Your task to perform on an android device: change the clock style Image 0: 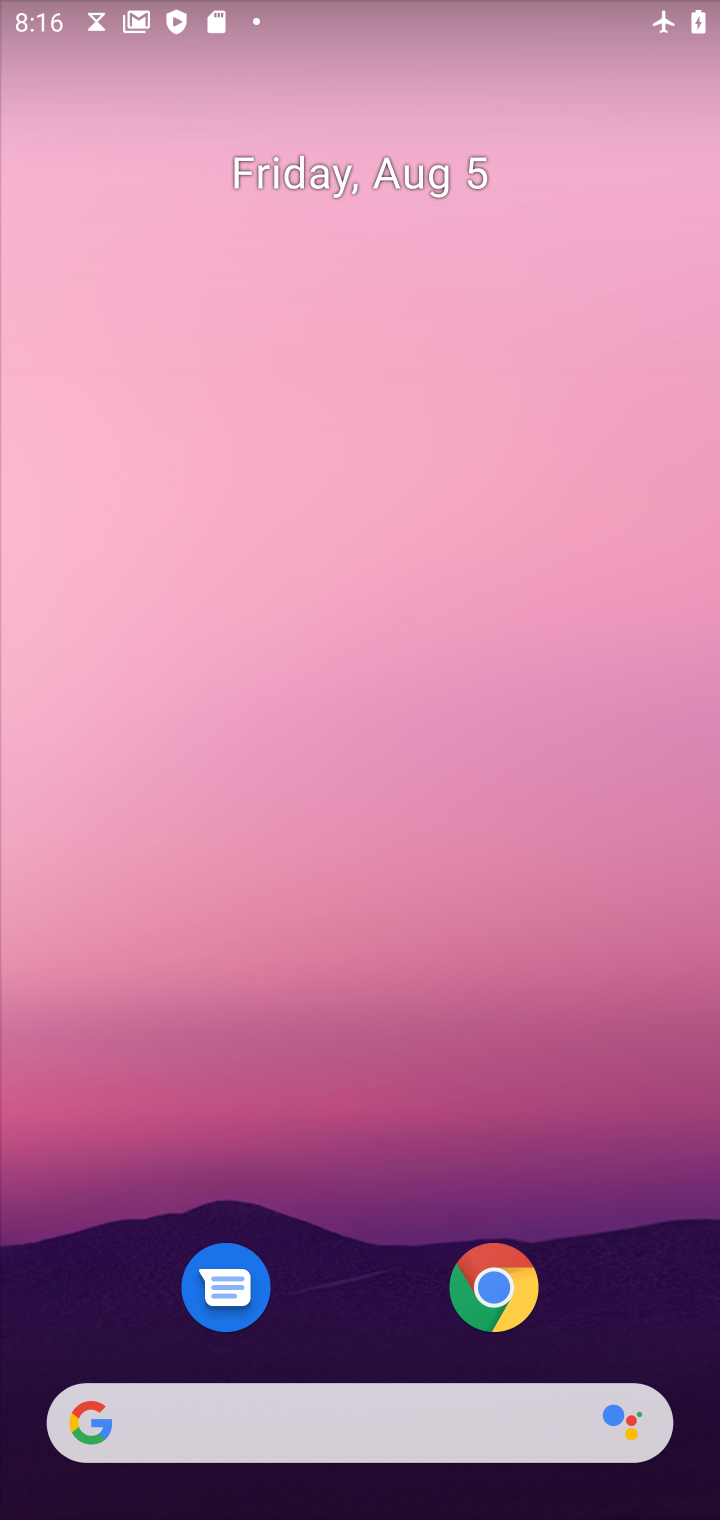
Step 0: drag from (354, 1322) to (354, 332)
Your task to perform on an android device: change the clock style Image 1: 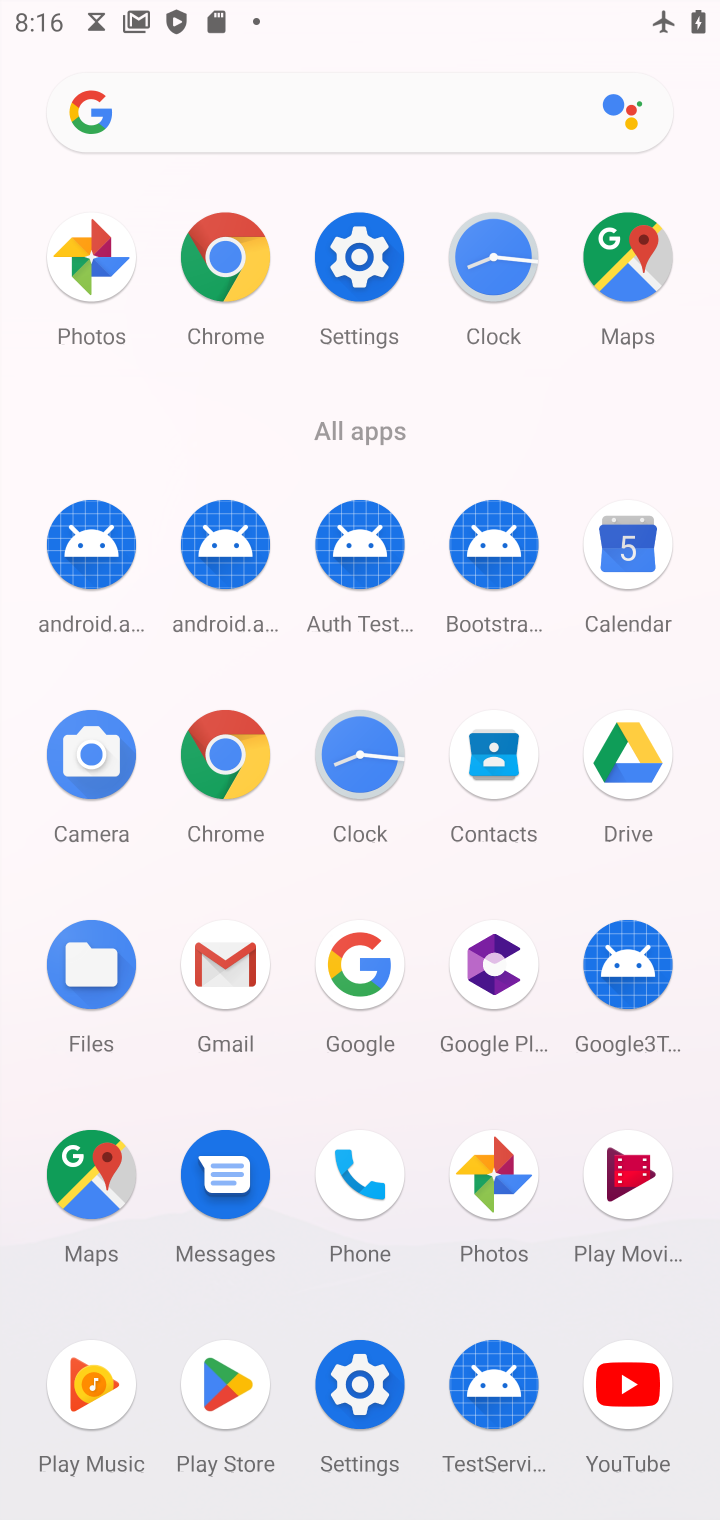
Step 1: click (352, 752)
Your task to perform on an android device: change the clock style Image 2: 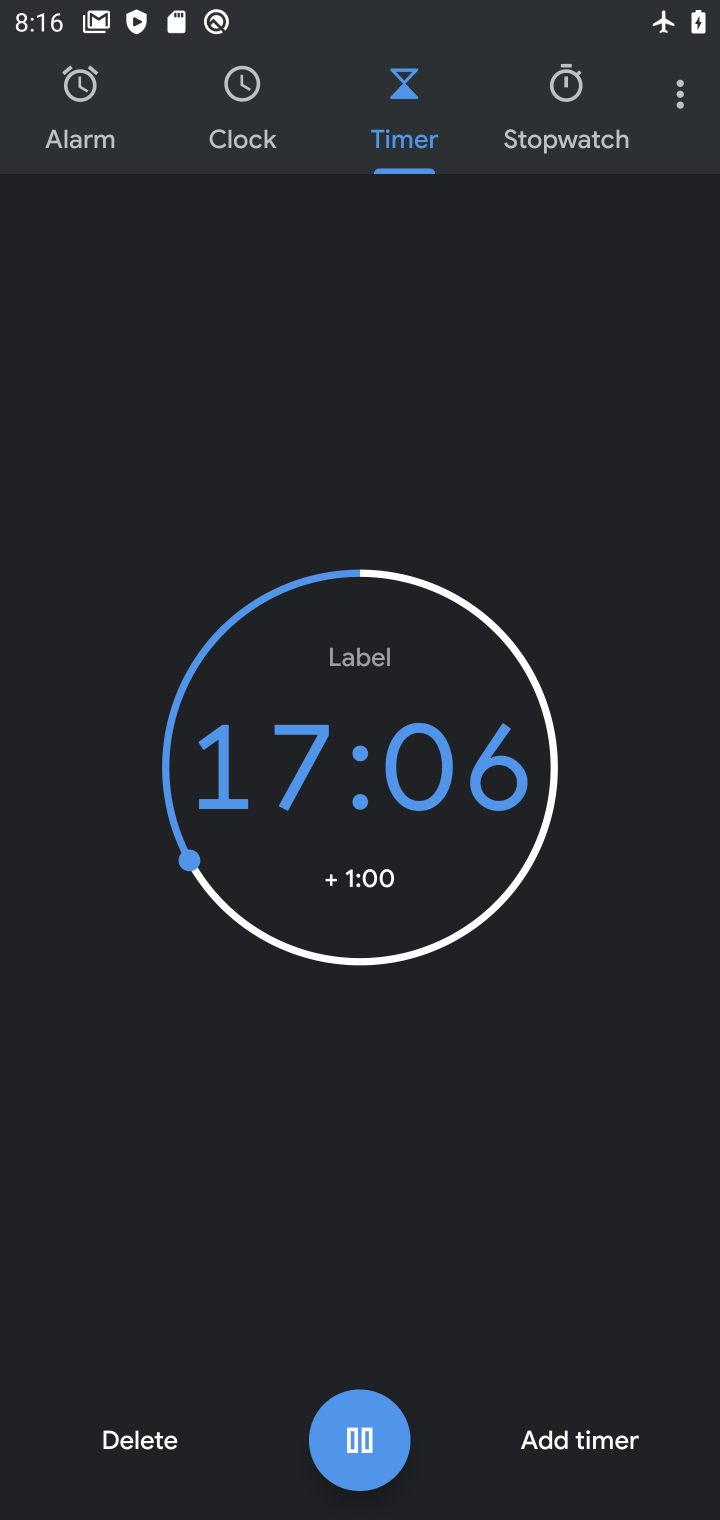
Step 2: click (679, 107)
Your task to perform on an android device: change the clock style Image 3: 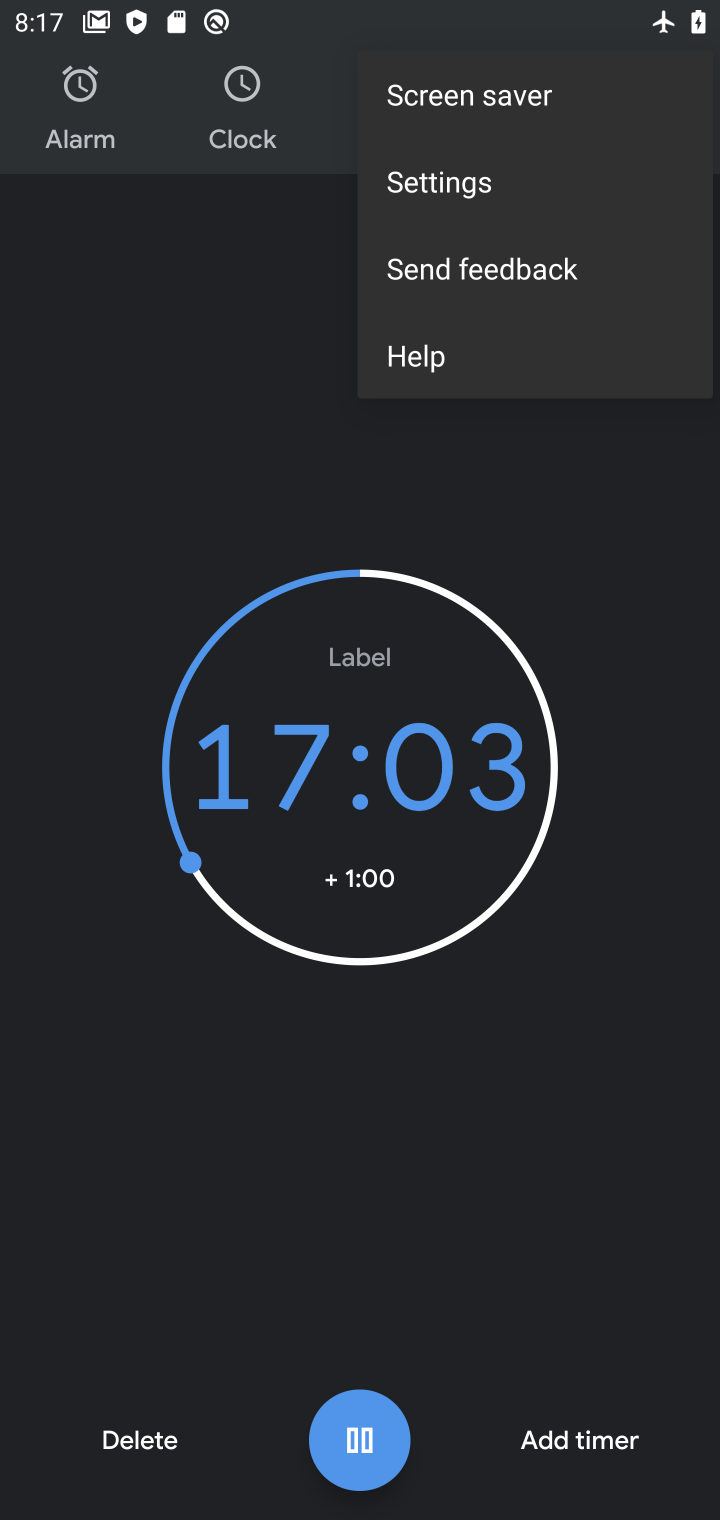
Step 3: click (456, 183)
Your task to perform on an android device: change the clock style Image 4: 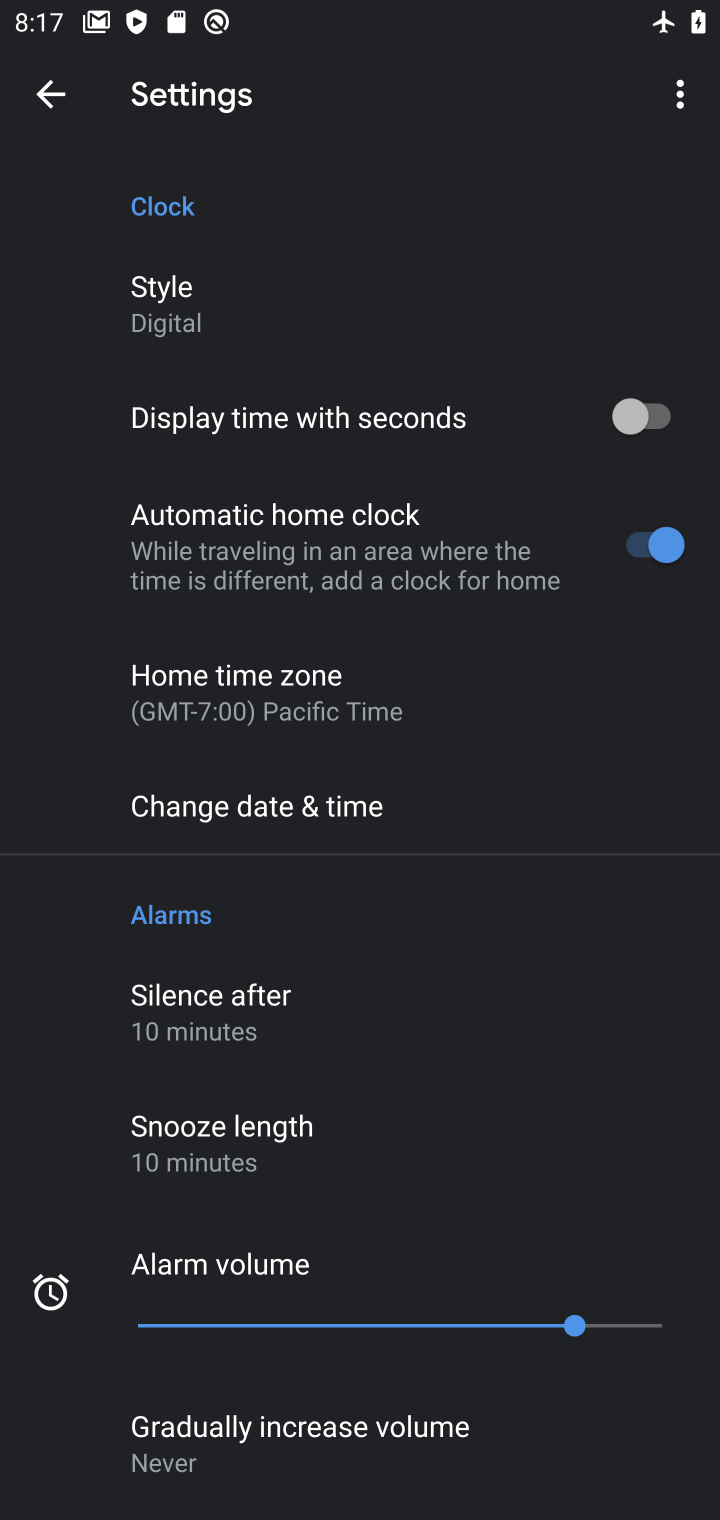
Step 4: click (174, 311)
Your task to perform on an android device: change the clock style Image 5: 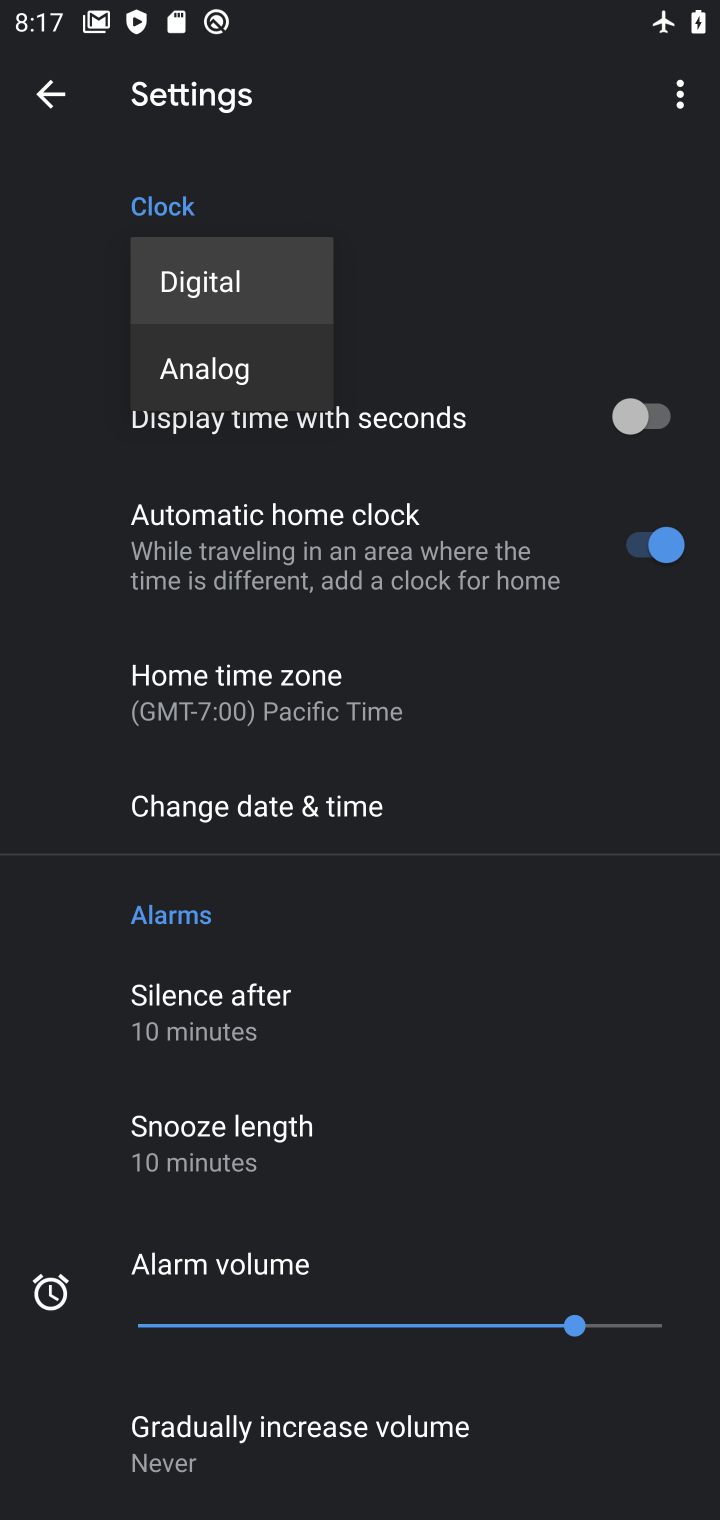
Step 5: click (196, 352)
Your task to perform on an android device: change the clock style Image 6: 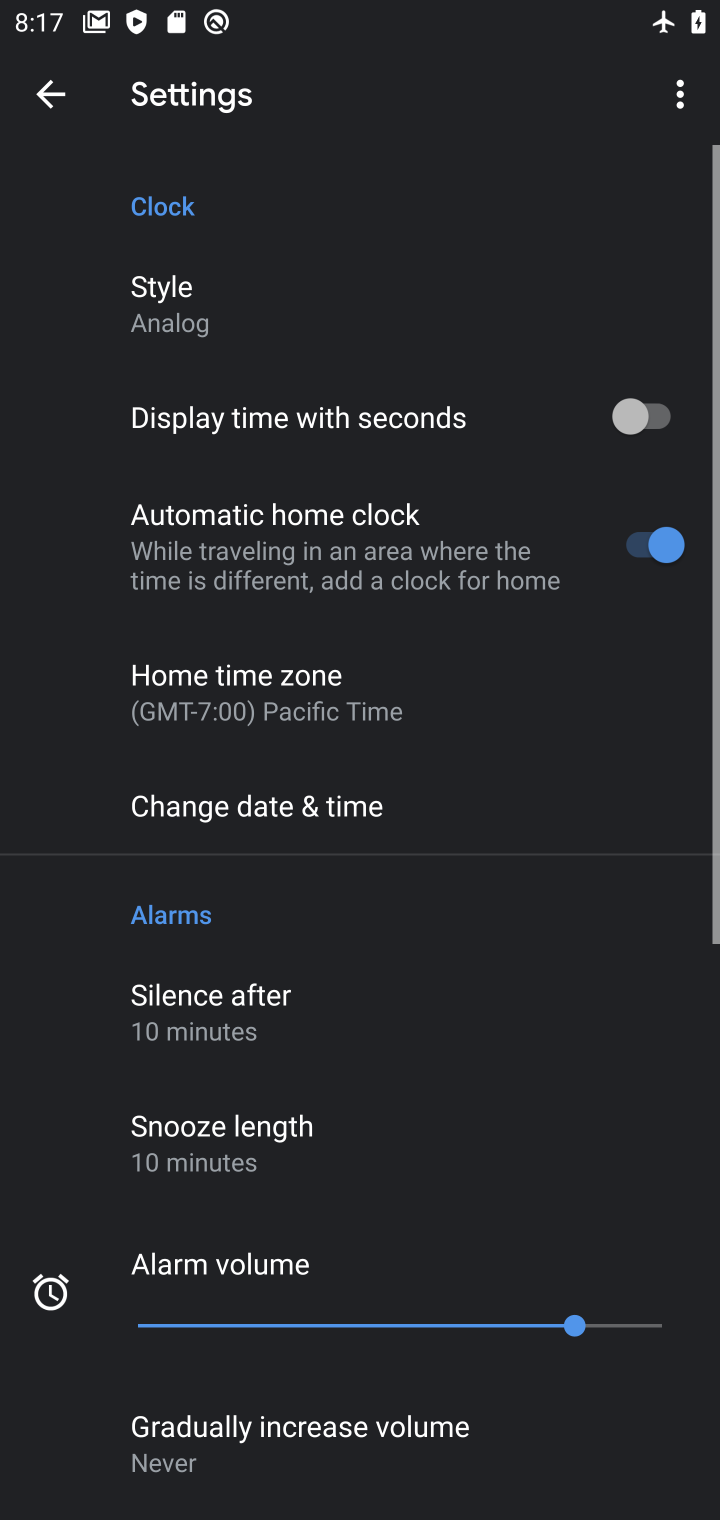
Step 6: task complete